Your task to perform on an android device: Open notification settings Image 0: 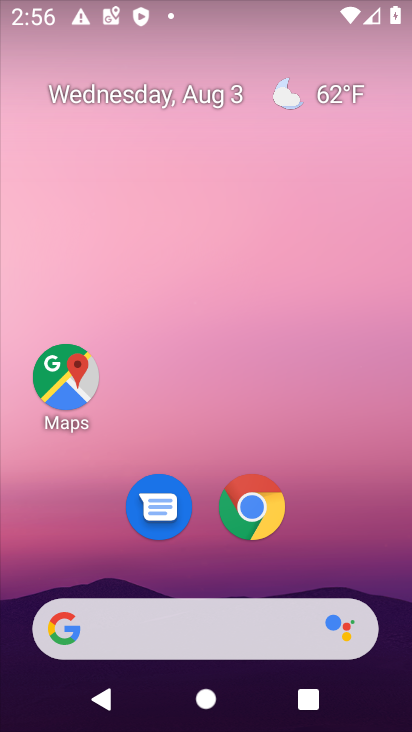
Step 0: drag from (335, 550) to (166, 72)
Your task to perform on an android device: Open notification settings Image 1: 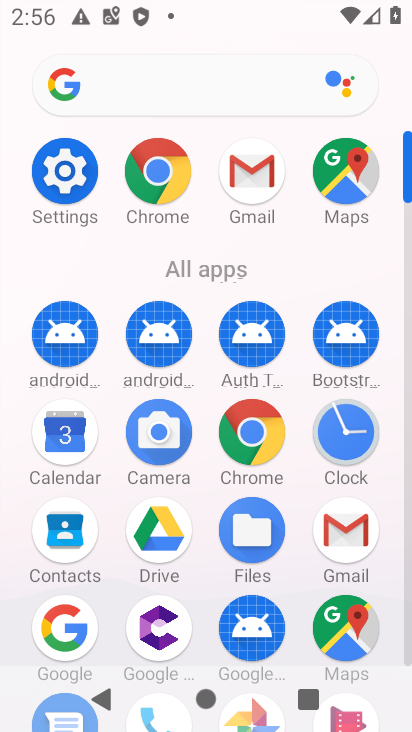
Step 1: click (63, 191)
Your task to perform on an android device: Open notification settings Image 2: 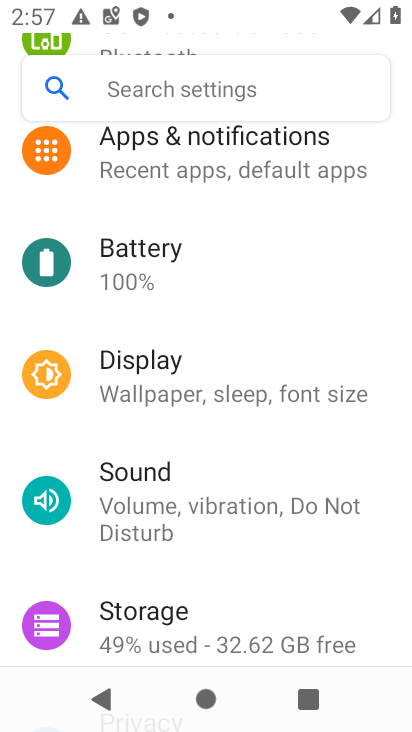
Step 2: click (213, 163)
Your task to perform on an android device: Open notification settings Image 3: 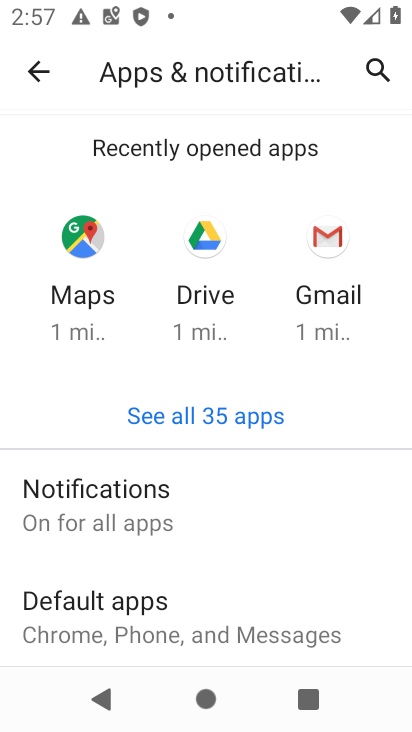
Step 3: task complete